Your task to perform on an android device: remove spam from my inbox in the gmail app Image 0: 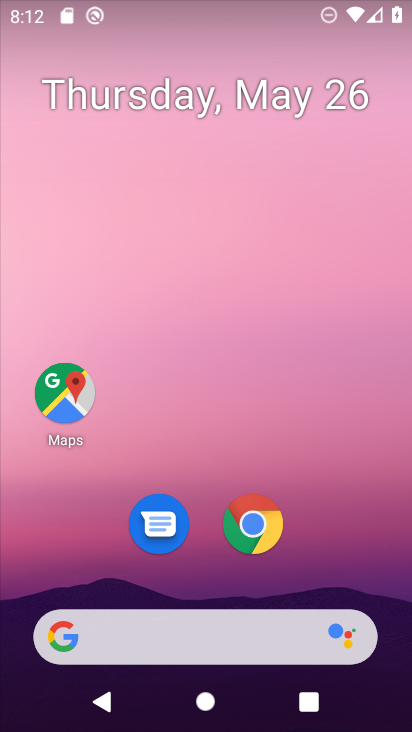
Step 0: drag from (219, 409) to (258, 3)
Your task to perform on an android device: remove spam from my inbox in the gmail app Image 1: 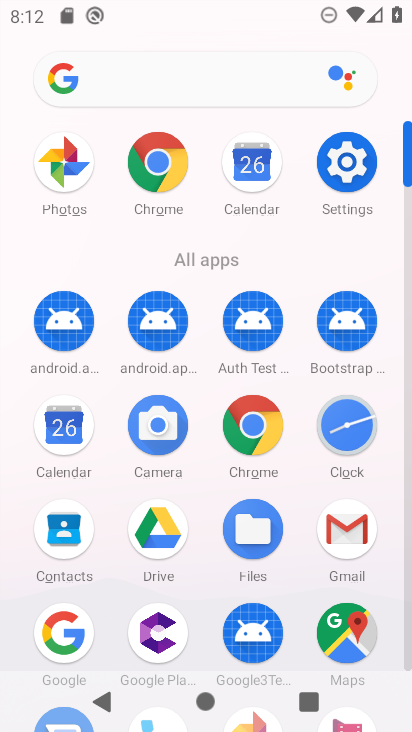
Step 1: click (344, 520)
Your task to perform on an android device: remove spam from my inbox in the gmail app Image 2: 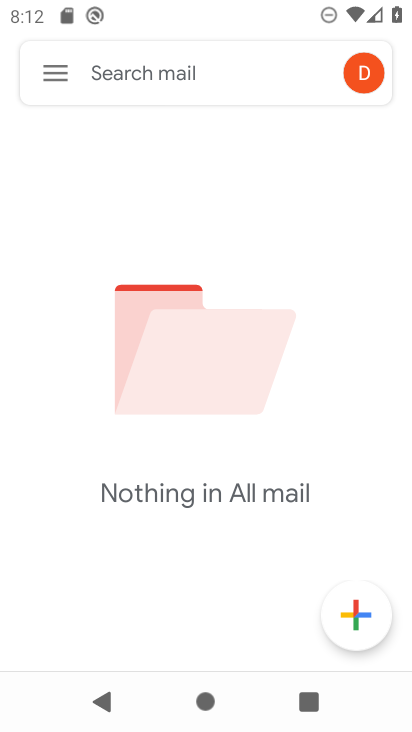
Step 2: click (60, 72)
Your task to perform on an android device: remove spam from my inbox in the gmail app Image 3: 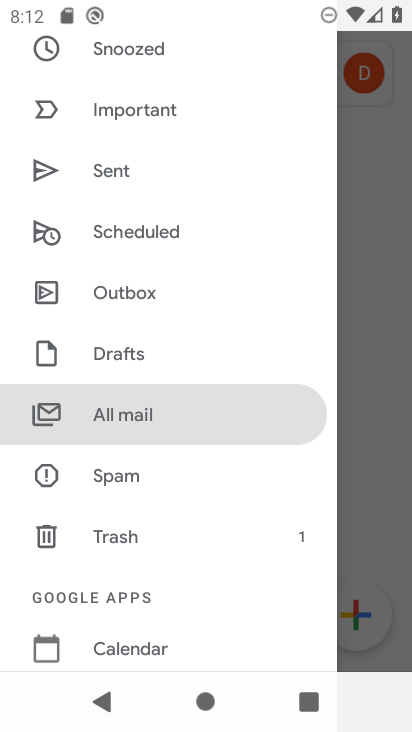
Step 3: click (135, 473)
Your task to perform on an android device: remove spam from my inbox in the gmail app Image 4: 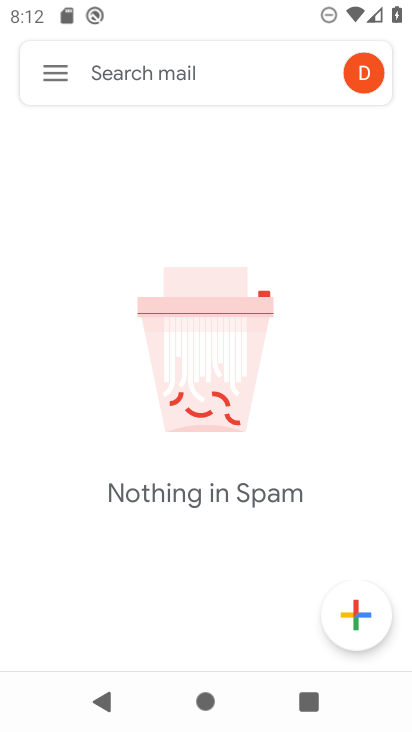
Step 4: task complete